Your task to perform on an android device: check android version Image 0: 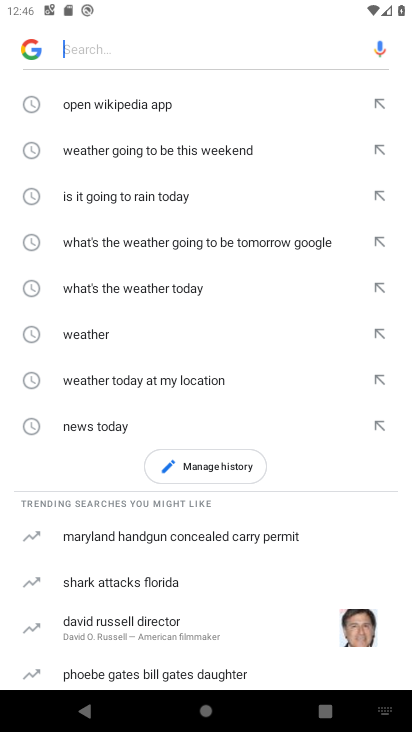
Step 0: press home button
Your task to perform on an android device: check android version Image 1: 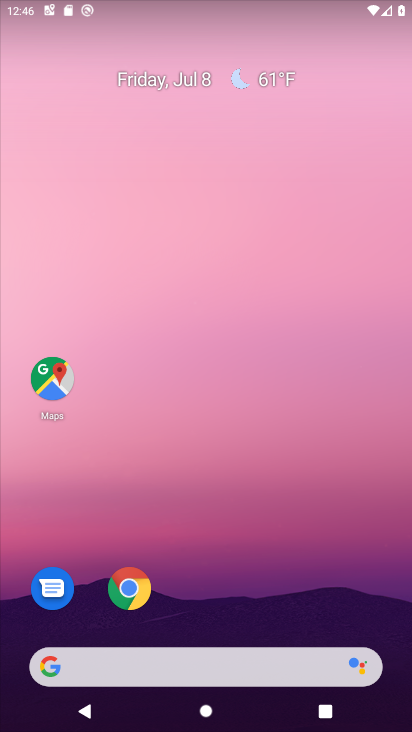
Step 1: drag from (253, 575) to (235, 103)
Your task to perform on an android device: check android version Image 2: 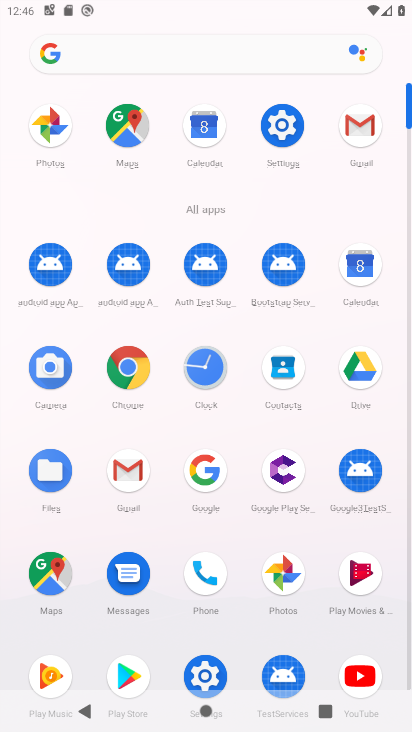
Step 2: click (285, 140)
Your task to perform on an android device: check android version Image 3: 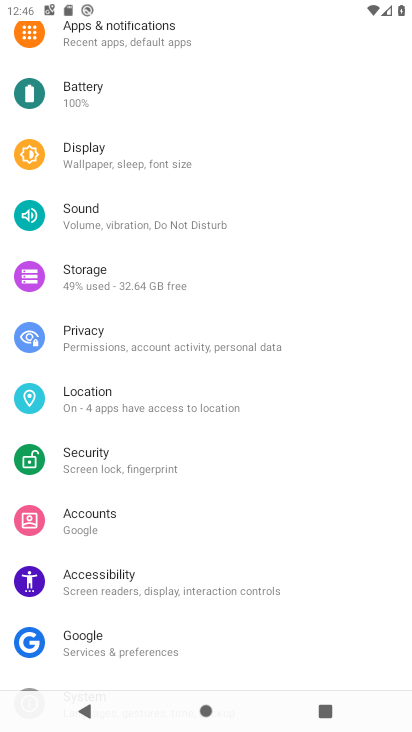
Step 3: drag from (279, 659) to (280, 229)
Your task to perform on an android device: check android version Image 4: 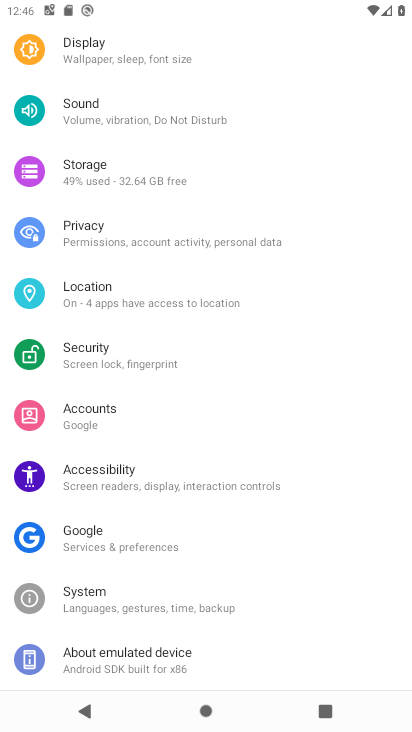
Step 4: click (118, 655)
Your task to perform on an android device: check android version Image 5: 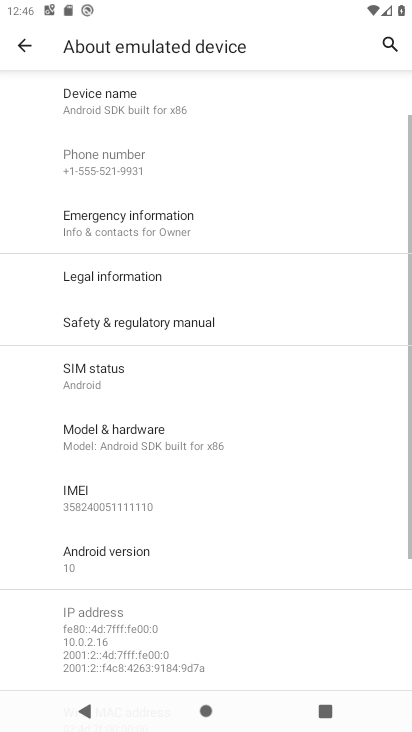
Step 5: click (118, 554)
Your task to perform on an android device: check android version Image 6: 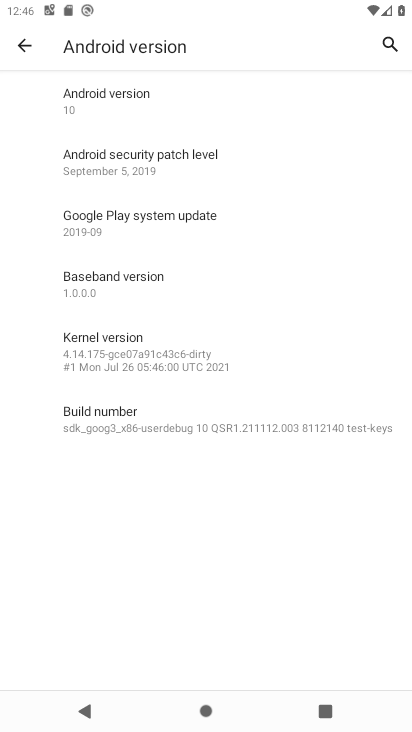
Step 6: task complete